Your task to perform on an android device: Open Youtube and go to "Your channel" Image 0: 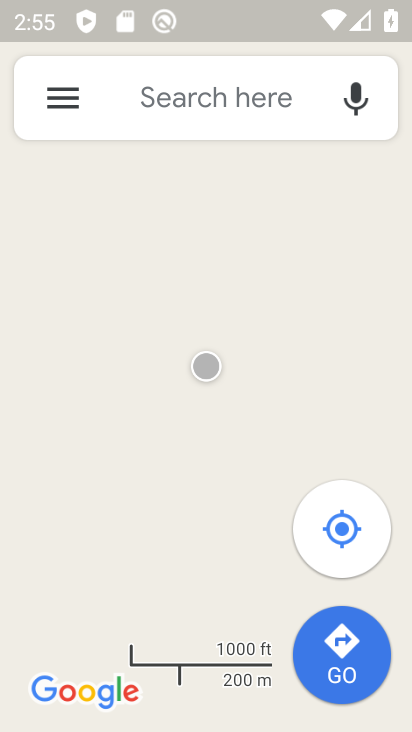
Step 0: press home button
Your task to perform on an android device: Open Youtube and go to "Your channel" Image 1: 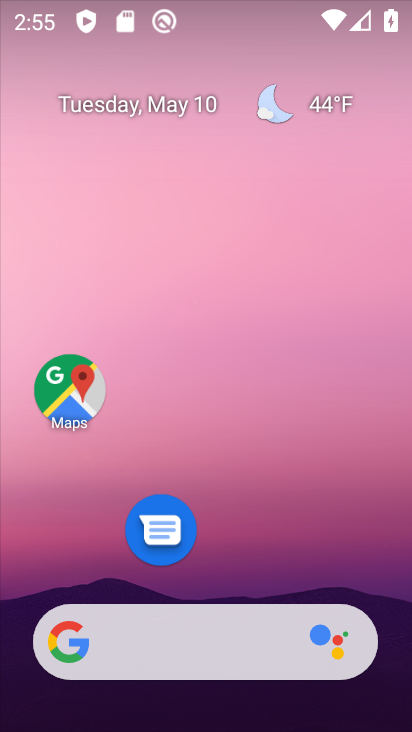
Step 1: drag from (230, 570) to (242, 47)
Your task to perform on an android device: Open Youtube and go to "Your channel" Image 2: 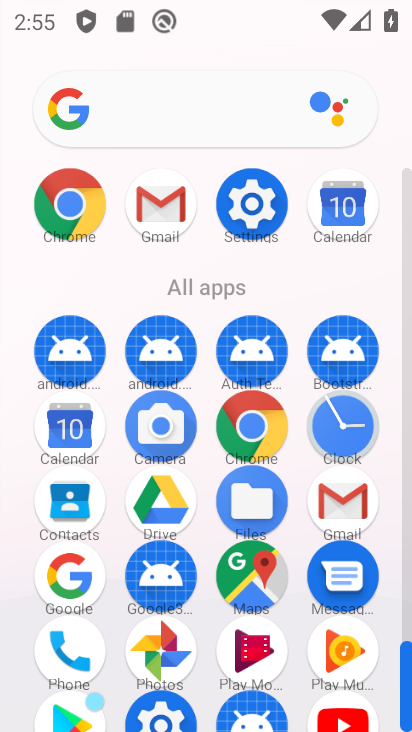
Step 2: drag from (210, 621) to (218, 225)
Your task to perform on an android device: Open Youtube and go to "Your channel" Image 3: 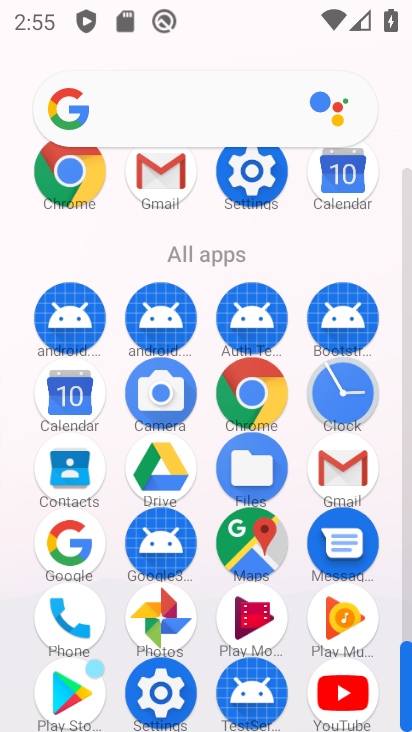
Step 3: click (349, 684)
Your task to perform on an android device: Open Youtube and go to "Your channel" Image 4: 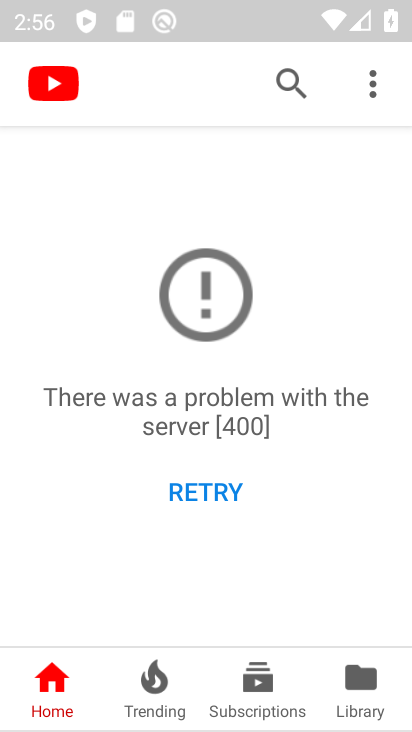
Step 4: click (362, 99)
Your task to perform on an android device: Open Youtube and go to "Your channel" Image 5: 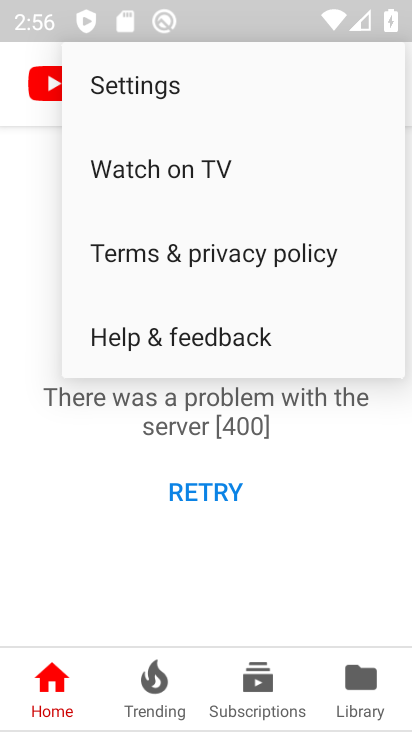
Step 5: click (325, 485)
Your task to perform on an android device: Open Youtube and go to "Your channel" Image 6: 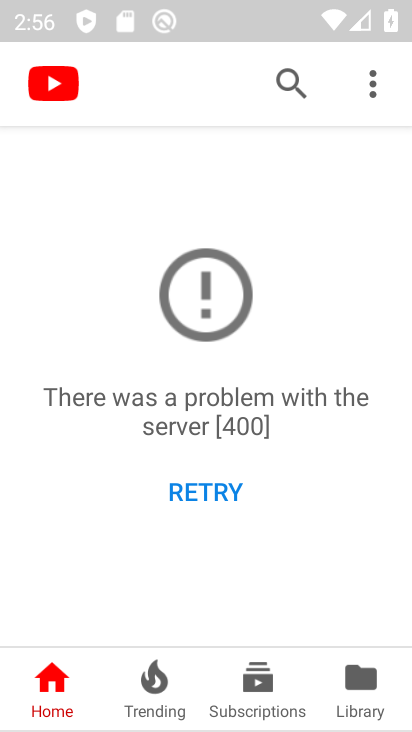
Step 6: task complete